Your task to perform on an android device: open wifi settings Image 0: 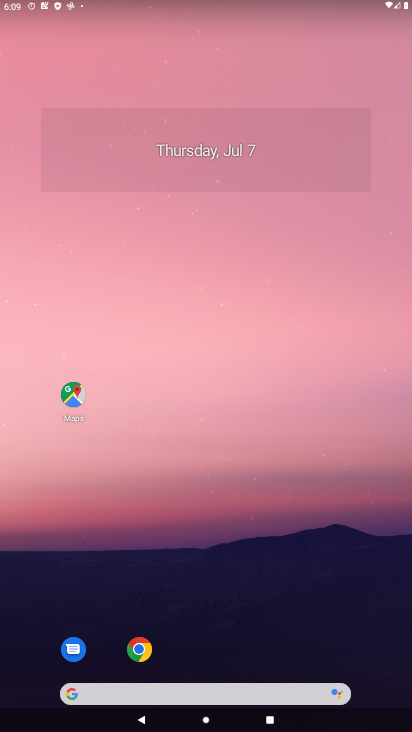
Step 0: drag from (399, 658) to (327, 99)
Your task to perform on an android device: open wifi settings Image 1: 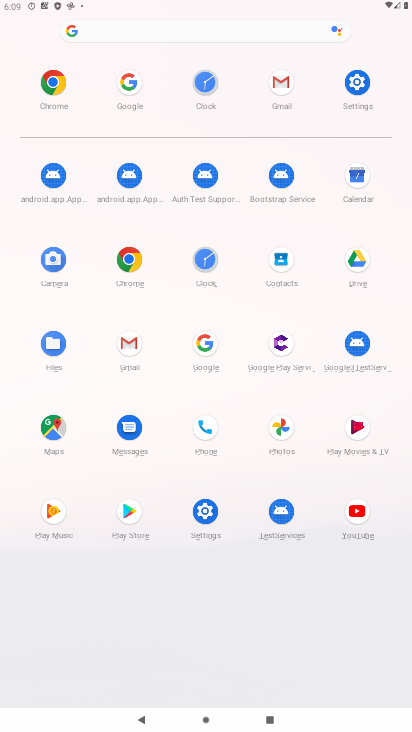
Step 1: click (359, 98)
Your task to perform on an android device: open wifi settings Image 2: 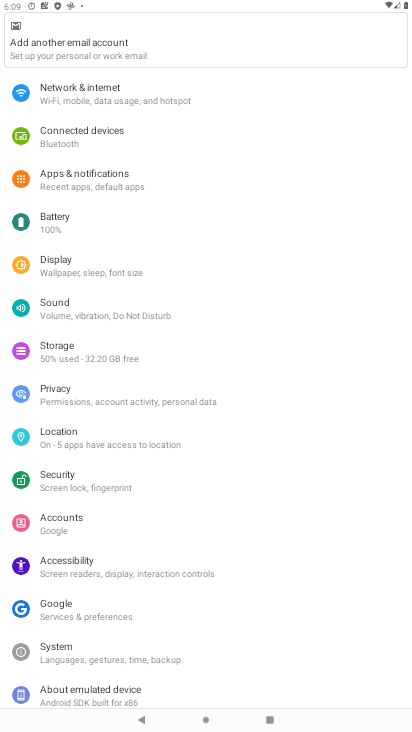
Step 2: click (118, 105)
Your task to perform on an android device: open wifi settings Image 3: 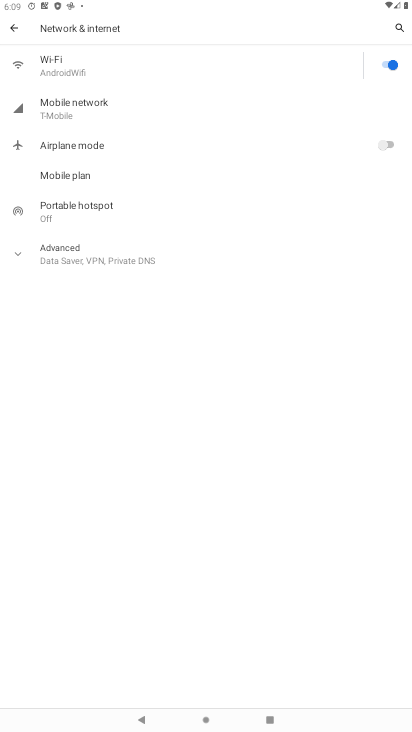
Step 3: click (62, 53)
Your task to perform on an android device: open wifi settings Image 4: 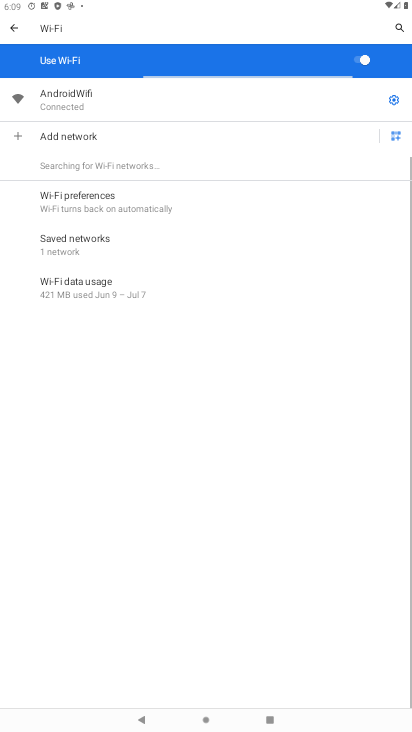
Step 4: task complete